Your task to perform on an android device: change the upload size in google photos Image 0: 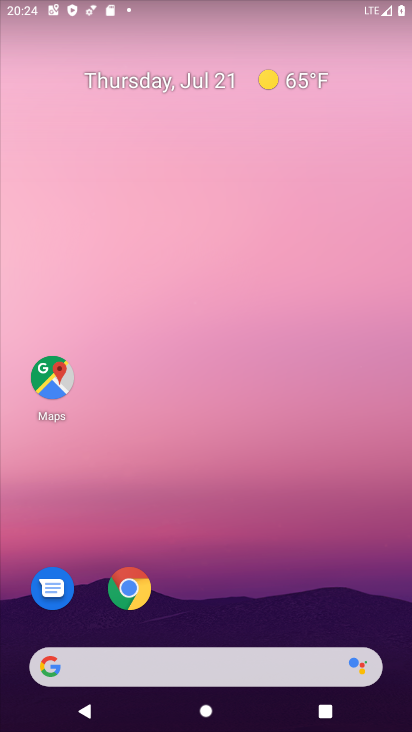
Step 0: click (118, 34)
Your task to perform on an android device: change the upload size in google photos Image 1: 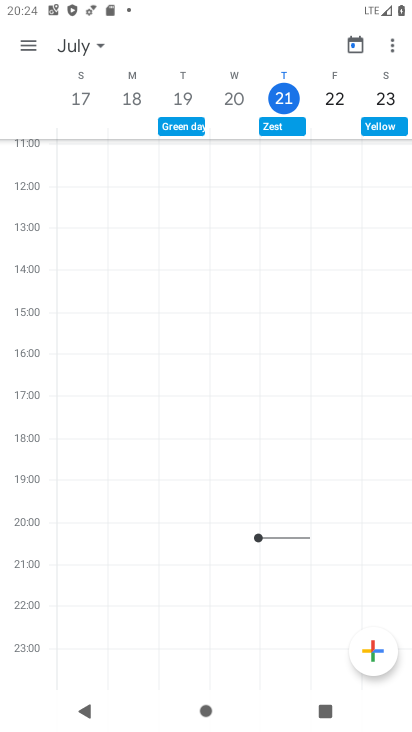
Step 1: press home button
Your task to perform on an android device: change the upload size in google photos Image 2: 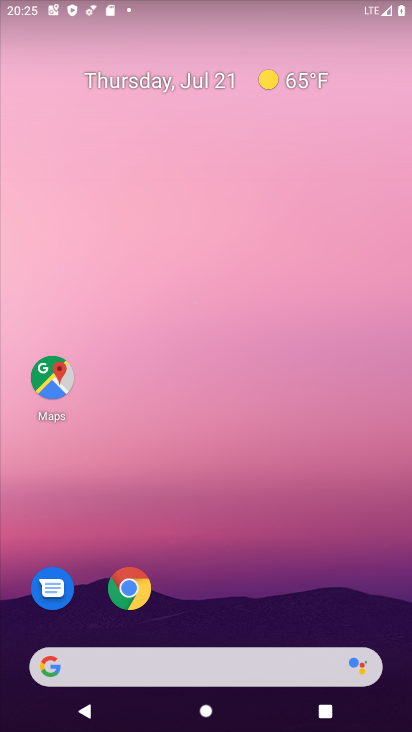
Step 2: drag from (204, 637) to (119, 32)
Your task to perform on an android device: change the upload size in google photos Image 3: 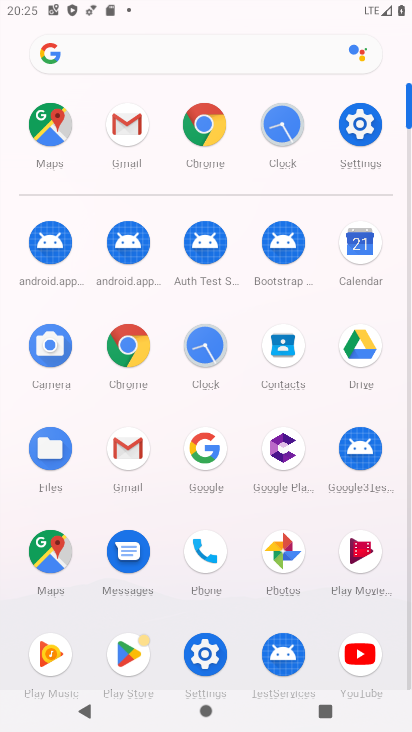
Step 3: click (290, 557)
Your task to perform on an android device: change the upload size in google photos Image 4: 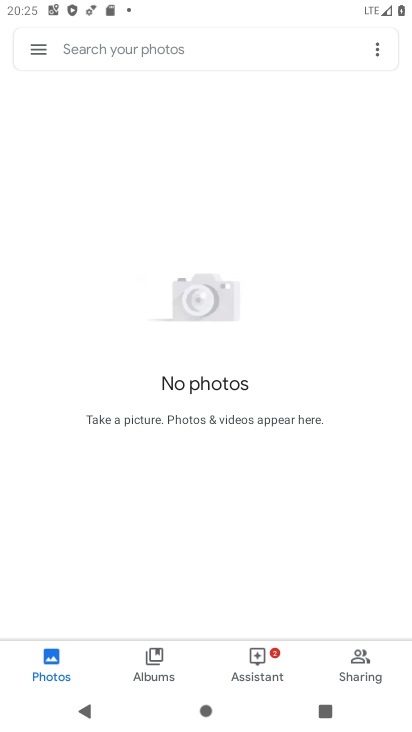
Step 4: click (31, 48)
Your task to perform on an android device: change the upload size in google photos Image 5: 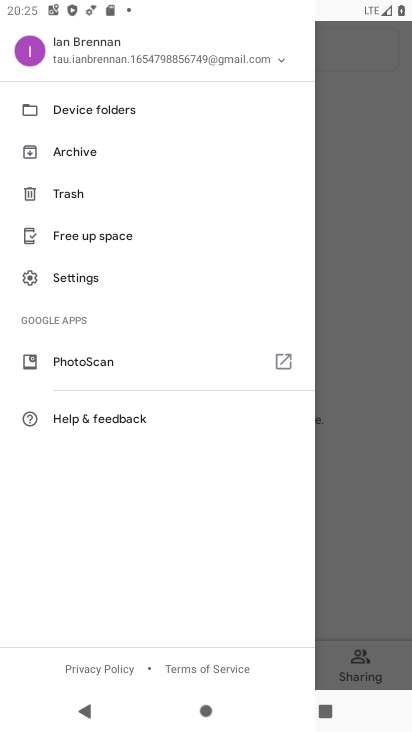
Step 5: click (67, 280)
Your task to perform on an android device: change the upload size in google photos Image 6: 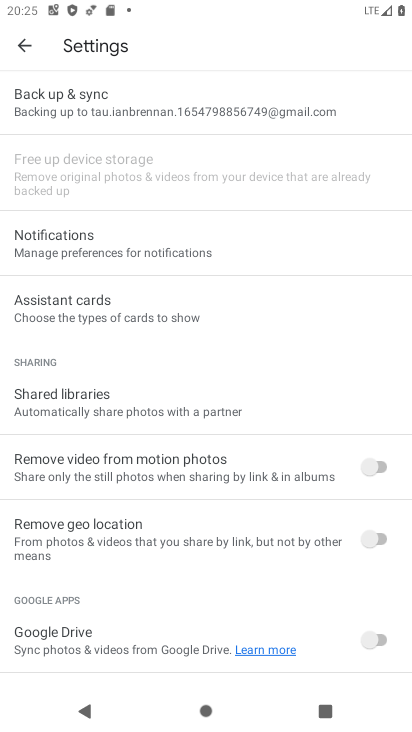
Step 6: click (35, 107)
Your task to perform on an android device: change the upload size in google photos Image 7: 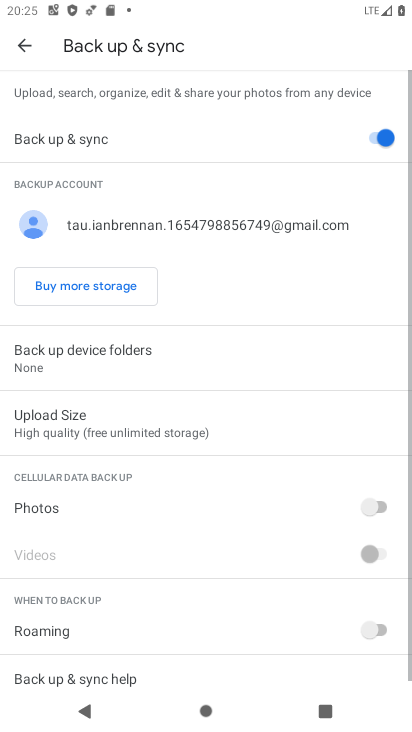
Step 7: click (61, 420)
Your task to perform on an android device: change the upload size in google photos Image 8: 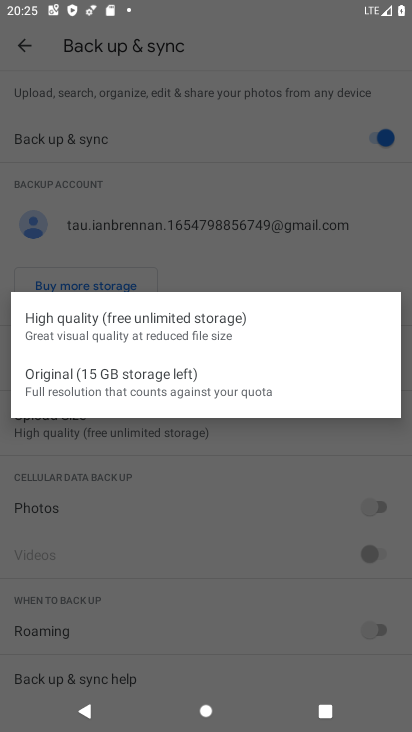
Step 8: click (53, 395)
Your task to perform on an android device: change the upload size in google photos Image 9: 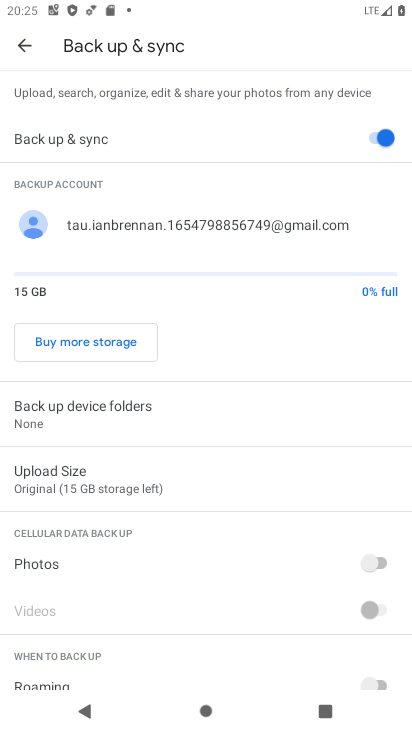
Step 9: task complete